Your task to perform on an android device: Show me productivity apps on the Play Store Image 0: 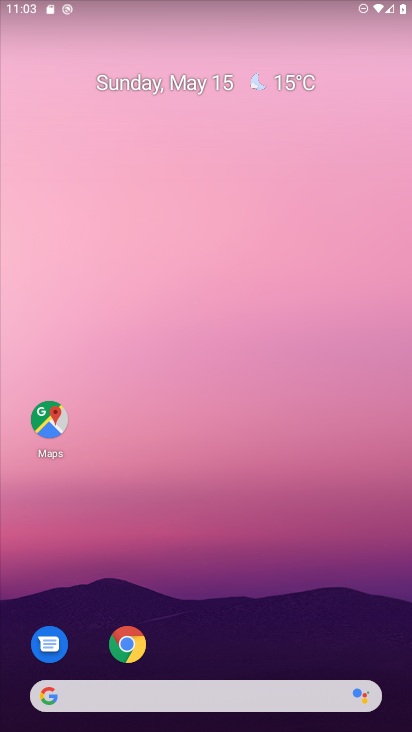
Step 0: press home button
Your task to perform on an android device: Show me productivity apps on the Play Store Image 1: 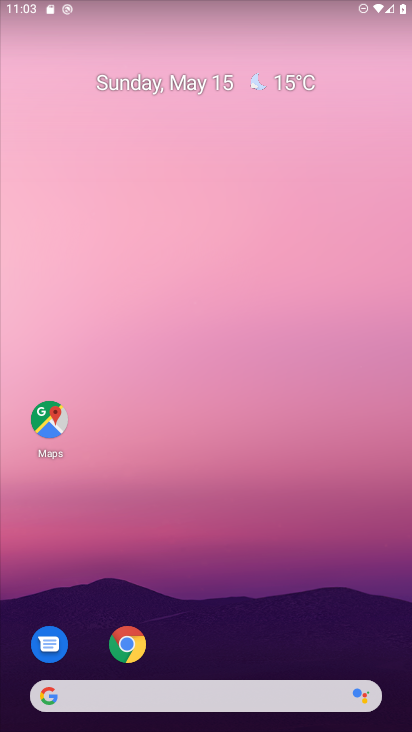
Step 1: drag from (236, 675) to (351, 119)
Your task to perform on an android device: Show me productivity apps on the Play Store Image 2: 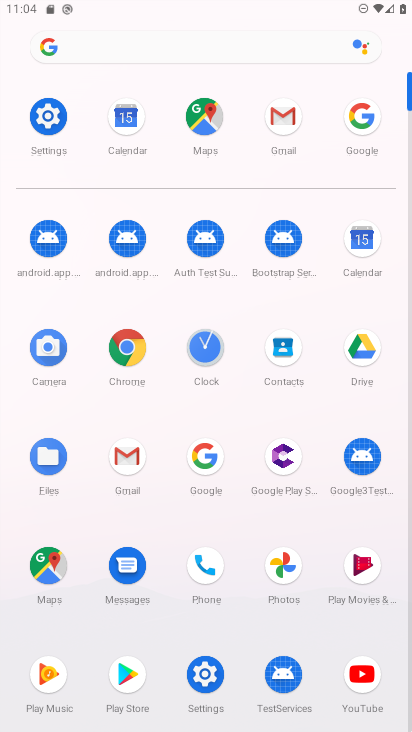
Step 2: click (129, 673)
Your task to perform on an android device: Show me productivity apps on the Play Store Image 3: 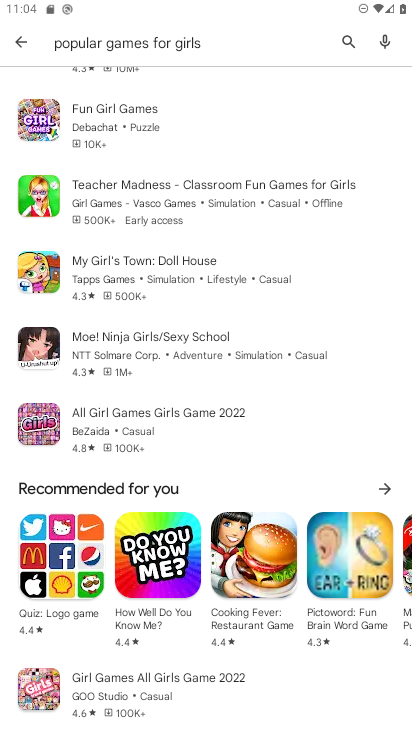
Step 3: drag from (205, 680) to (205, 120)
Your task to perform on an android device: Show me productivity apps on the Play Store Image 4: 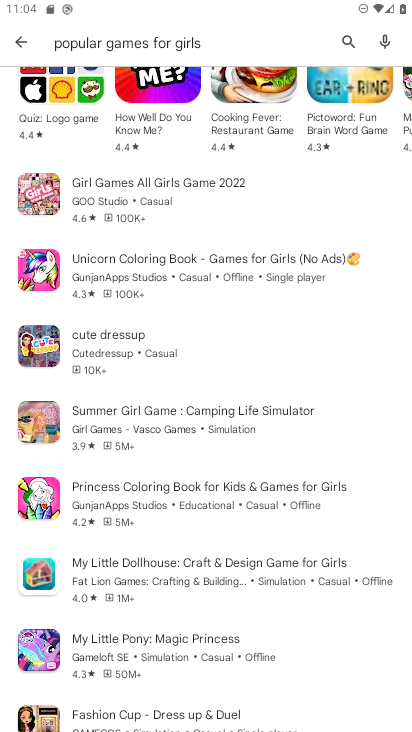
Step 4: click (25, 58)
Your task to perform on an android device: Show me productivity apps on the Play Store Image 5: 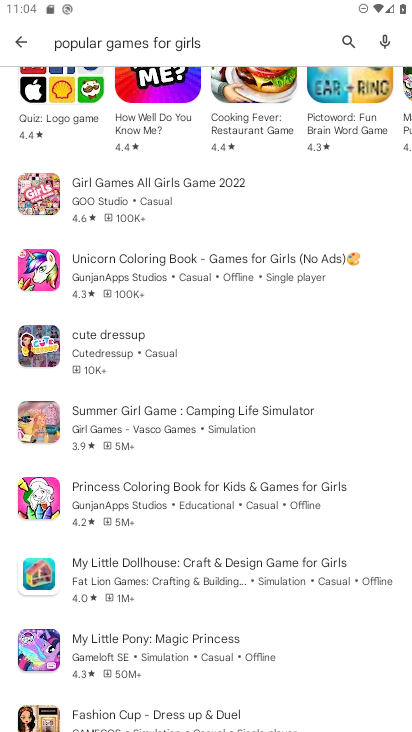
Step 5: click (27, 41)
Your task to perform on an android device: Show me productivity apps on the Play Store Image 6: 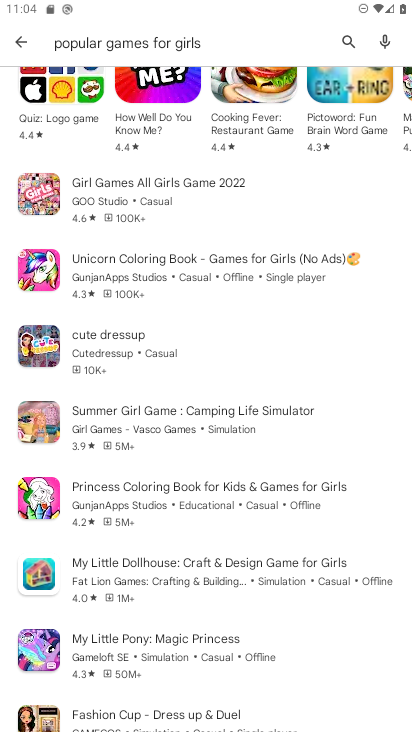
Step 6: press back button
Your task to perform on an android device: Show me productivity apps on the Play Store Image 7: 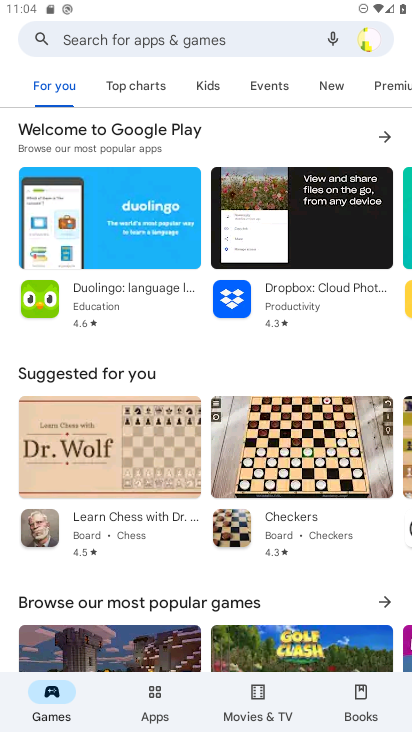
Step 7: click (150, 694)
Your task to perform on an android device: Show me productivity apps on the Play Store Image 8: 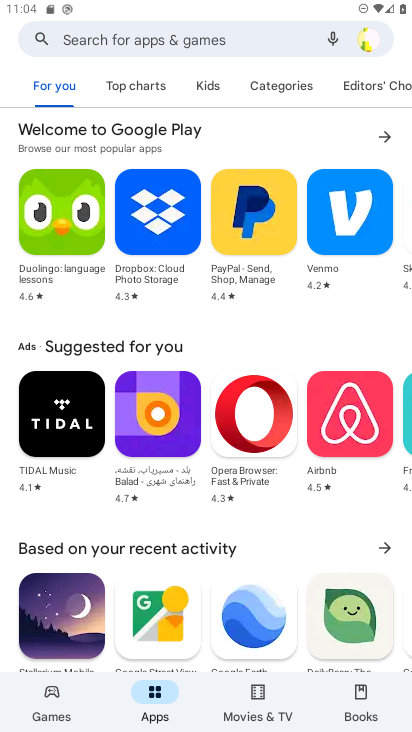
Step 8: task complete